Your task to perform on an android device: Search for seafood restaurants on Google Maps Image 0: 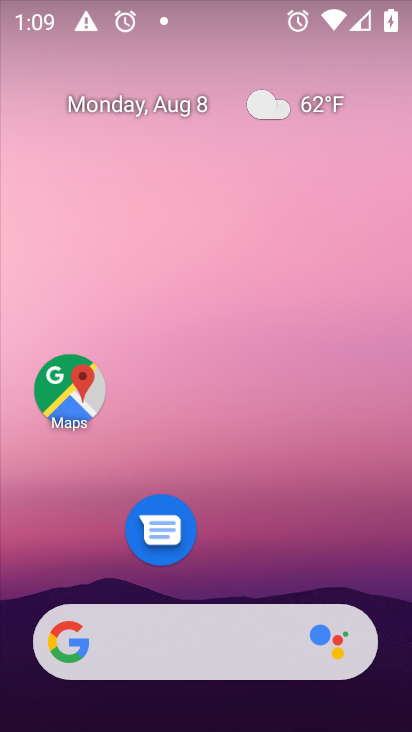
Step 0: drag from (230, 524) to (225, 79)
Your task to perform on an android device: Search for seafood restaurants on Google Maps Image 1: 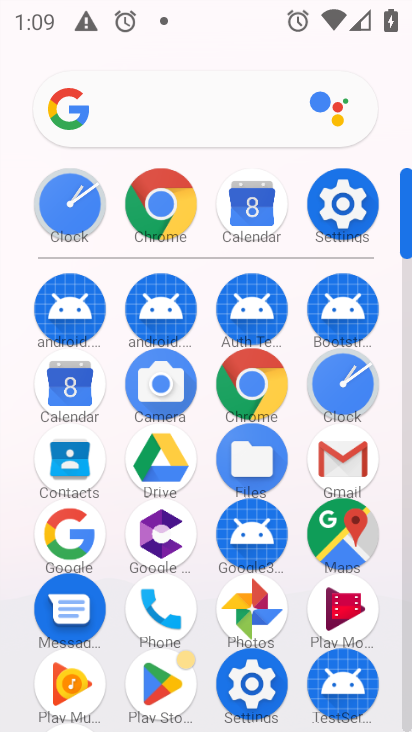
Step 1: click (329, 532)
Your task to perform on an android device: Search for seafood restaurants on Google Maps Image 2: 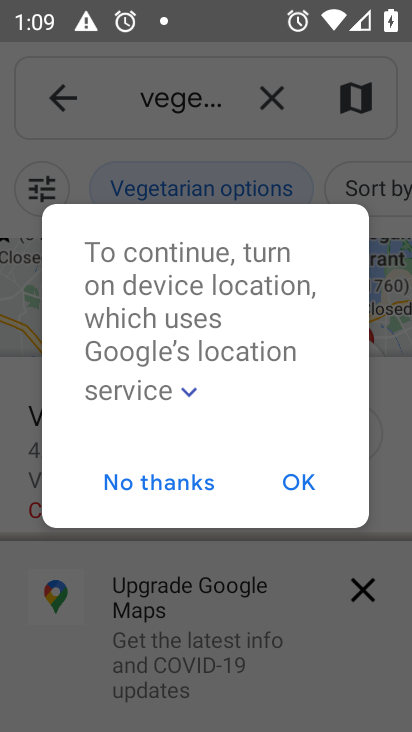
Step 2: click (299, 480)
Your task to perform on an android device: Search for seafood restaurants on Google Maps Image 3: 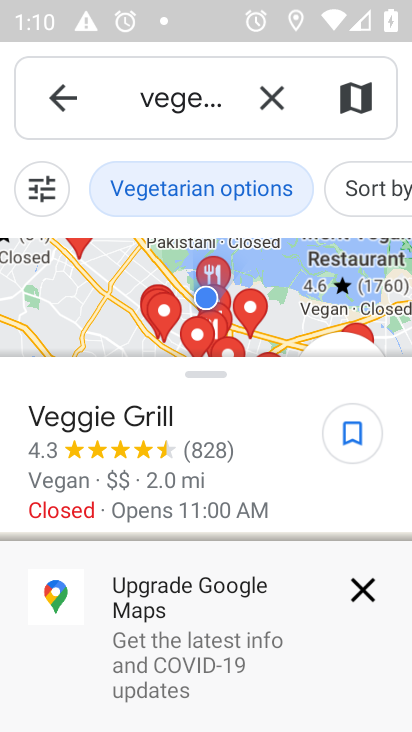
Step 3: click (270, 93)
Your task to perform on an android device: Search for seafood restaurants on Google Maps Image 4: 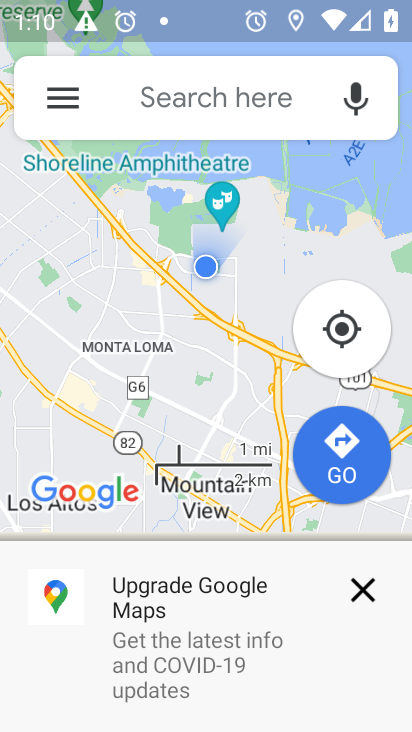
Step 4: click (207, 93)
Your task to perform on an android device: Search for seafood restaurants on Google Maps Image 5: 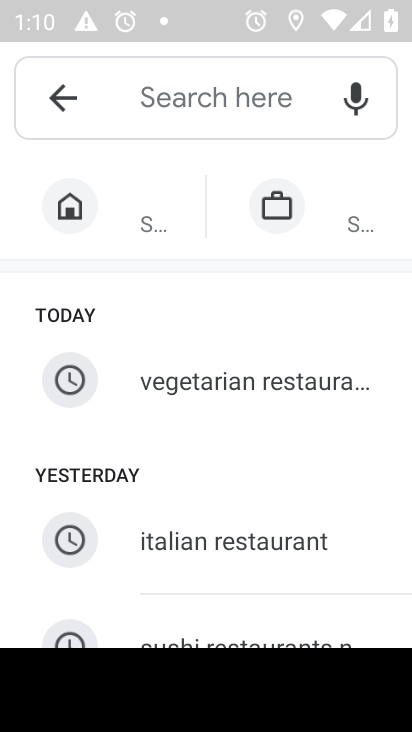
Step 5: type "seafood restaurants"
Your task to perform on an android device: Search for seafood restaurants on Google Maps Image 6: 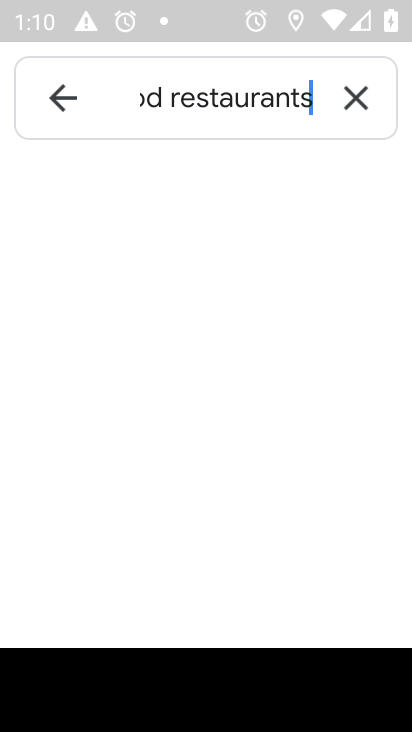
Step 6: type ""
Your task to perform on an android device: Search for seafood restaurants on Google Maps Image 7: 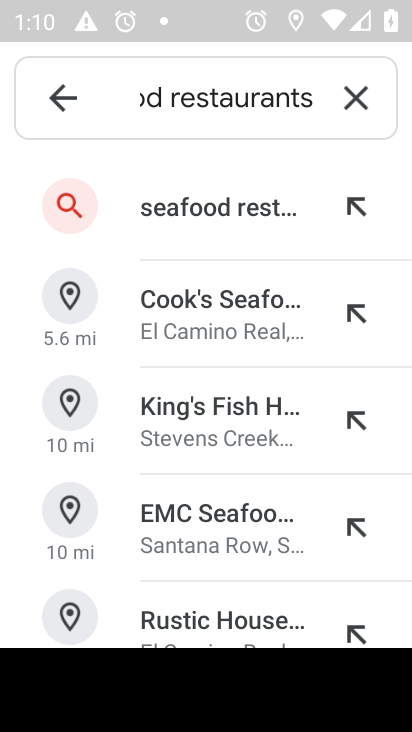
Step 7: click (195, 209)
Your task to perform on an android device: Search for seafood restaurants on Google Maps Image 8: 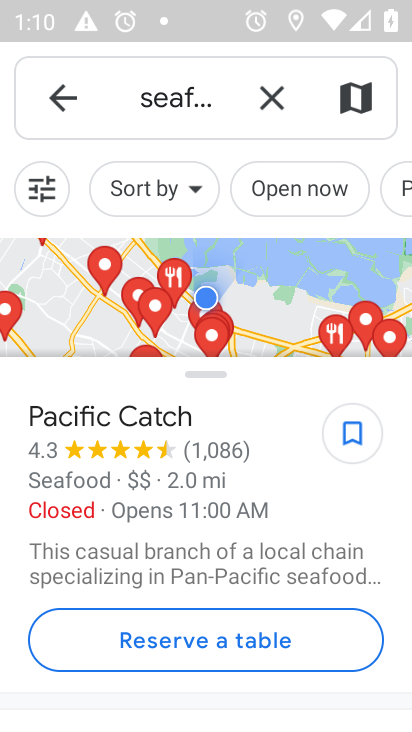
Step 8: task complete